Your task to perform on an android device: refresh tabs in the chrome app Image 0: 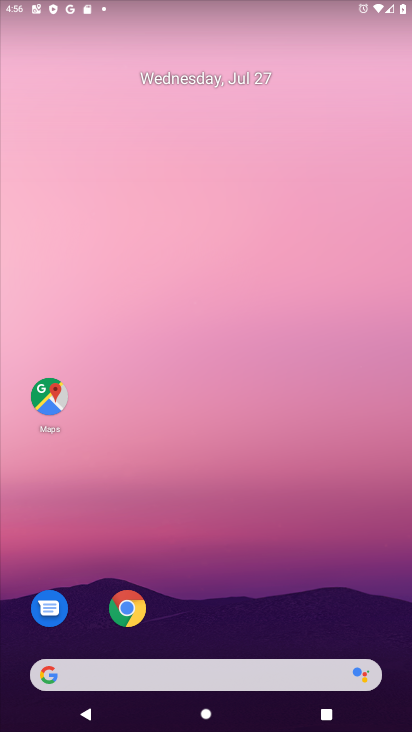
Step 0: drag from (224, 614) to (180, 80)
Your task to perform on an android device: refresh tabs in the chrome app Image 1: 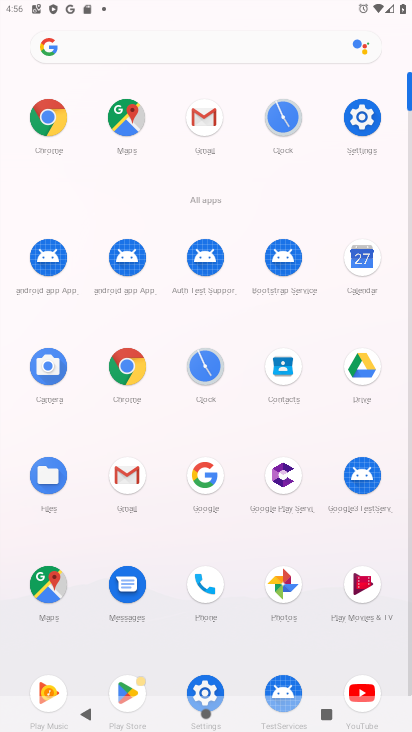
Step 1: click (50, 123)
Your task to perform on an android device: refresh tabs in the chrome app Image 2: 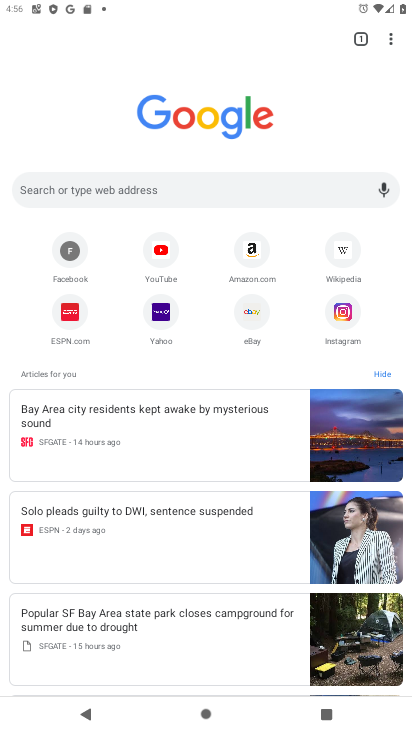
Step 2: click (392, 47)
Your task to perform on an android device: refresh tabs in the chrome app Image 3: 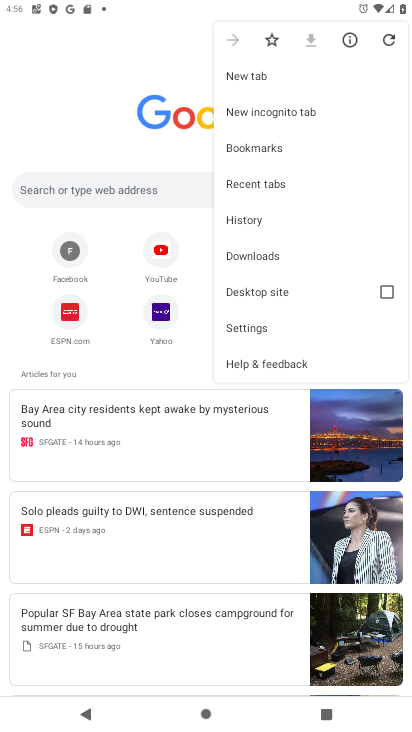
Step 3: click (392, 47)
Your task to perform on an android device: refresh tabs in the chrome app Image 4: 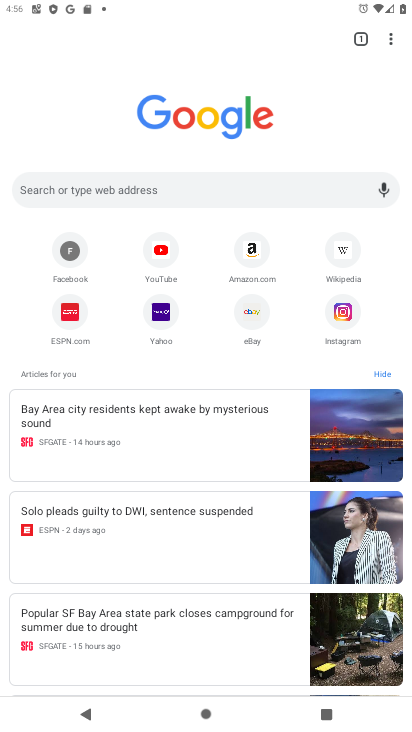
Step 4: task complete